Your task to perform on an android device: Open eBay Image 0: 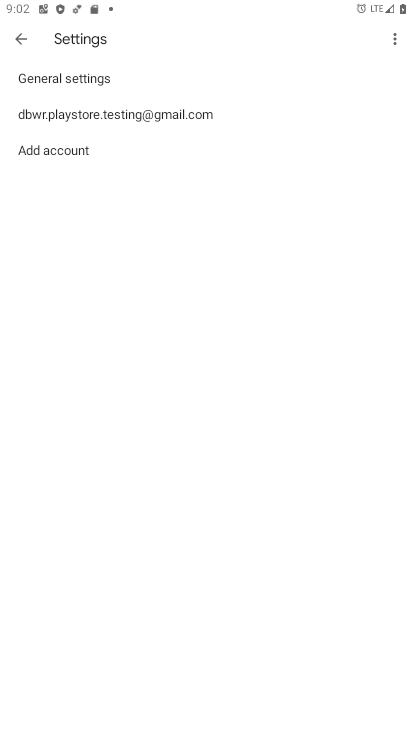
Step 0: press home button
Your task to perform on an android device: Open eBay Image 1: 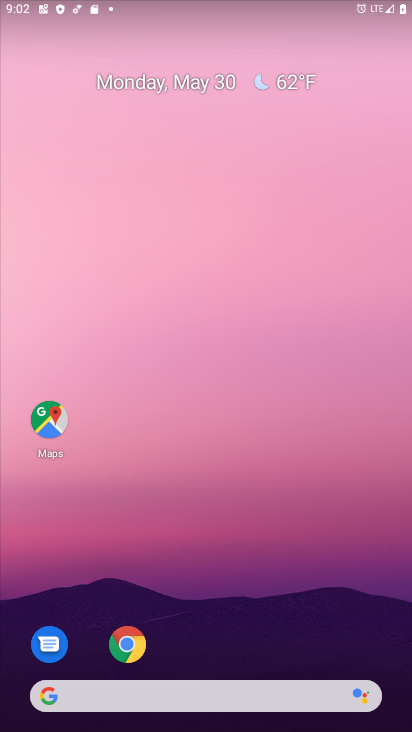
Step 1: click (126, 645)
Your task to perform on an android device: Open eBay Image 2: 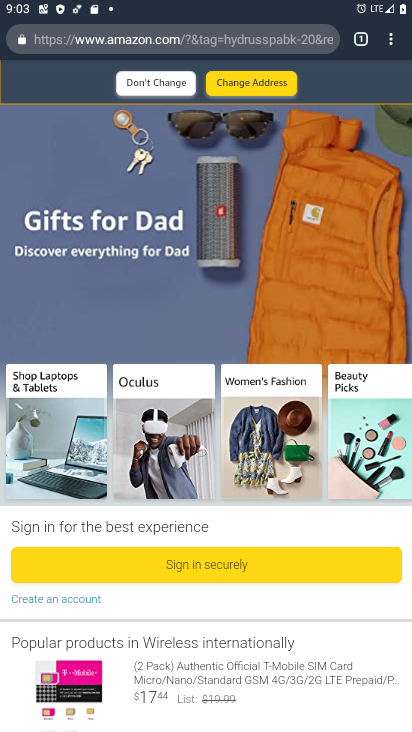
Step 2: click (265, 38)
Your task to perform on an android device: Open eBay Image 3: 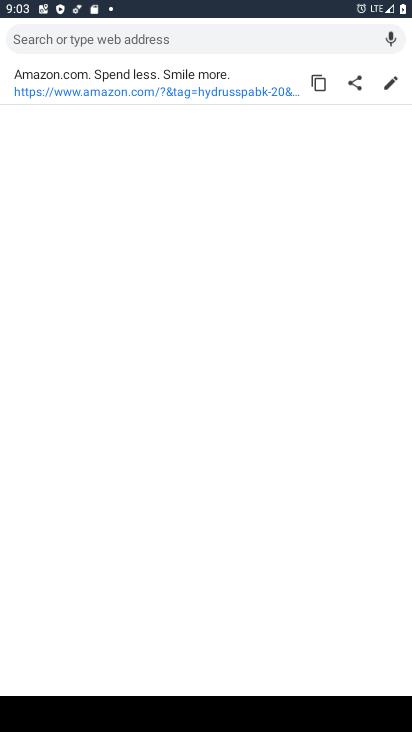
Step 3: type "ebay"
Your task to perform on an android device: Open eBay Image 4: 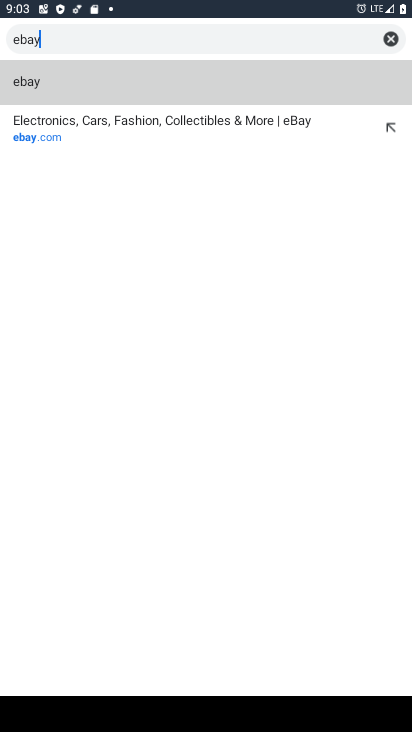
Step 4: click (57, 76)
Your task to perform on an android device: Open eBay Image 5: 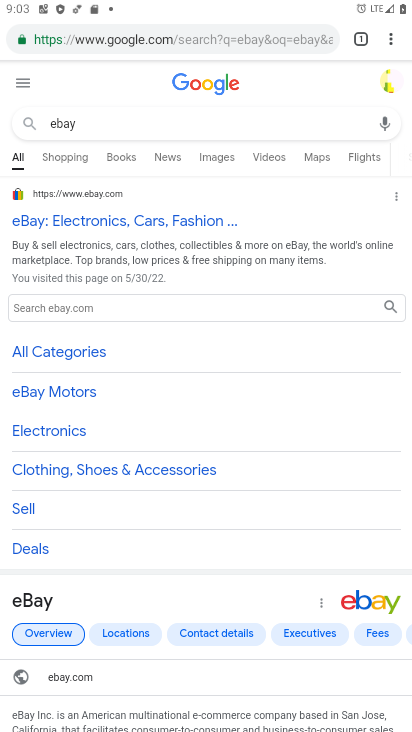
Step 5: click (67, 227)
Your task to perform on an android device: Open eBay Image 6: 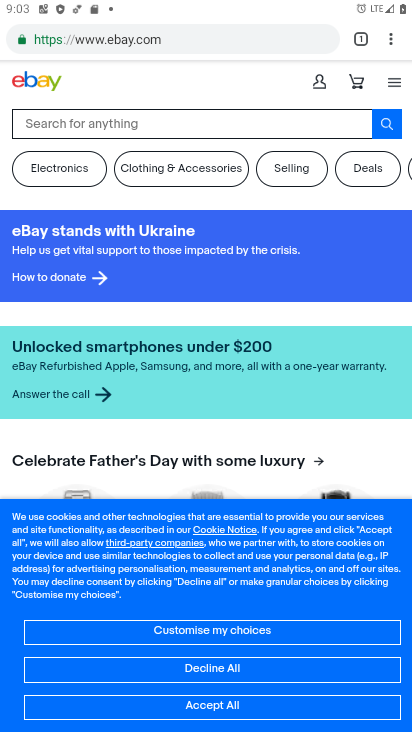
Step 6: task complete